Your task to perform on an android device: turn on the 12-hour format for clock Image 0: 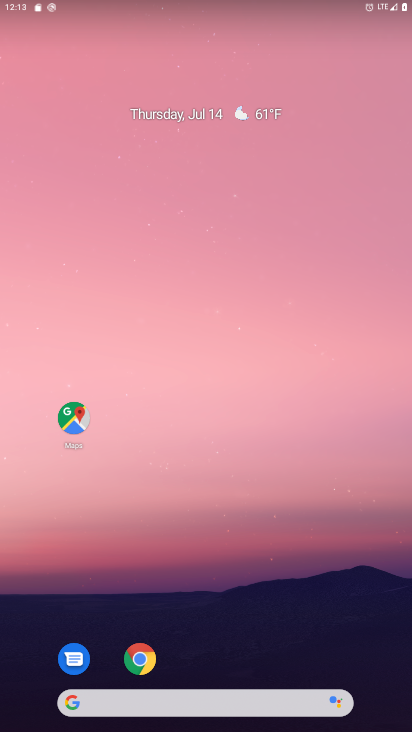
Step 0: drag from (199, 660) to (239, 135)
Your task to perform on an android device: turn on the 12-hour format for clock Image 1: 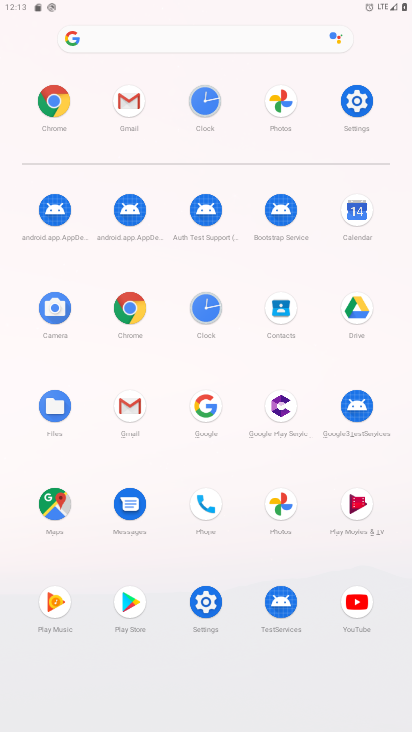
Step 1: click (199, 300)
Your task to perform on an android device: turn on the 12-hour format for clock Image 2: 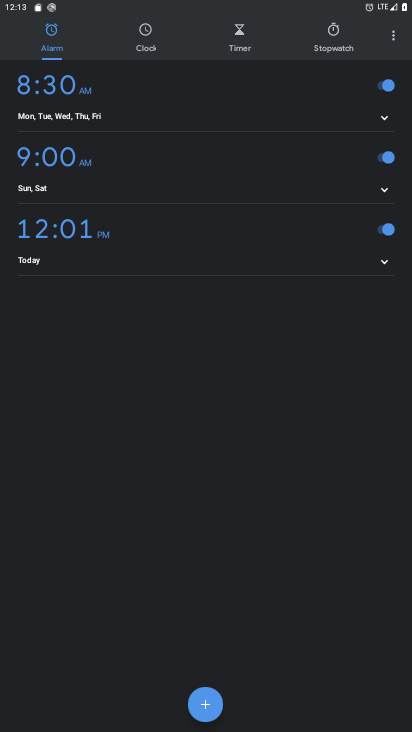
Step 2: click (390, 35)
Your task to perform on an android device: turn on the 12-hour format for clock Image 3: 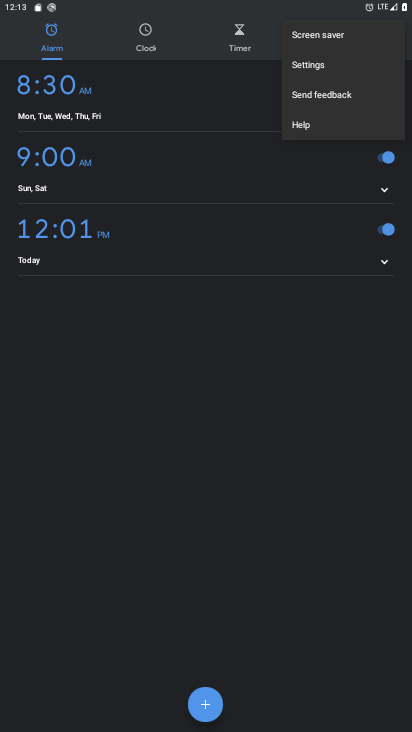
Step 3: click (333, 60)
Your task to perform on an android device: turn on the 12-hour format for clock Image 4: 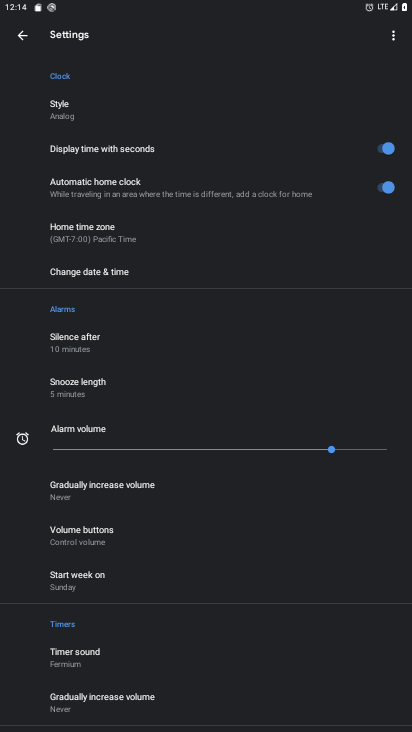
Step 4: click (143, 267)
Your task to perform on an android device: turn on the 12-hour format for clock Image 5: 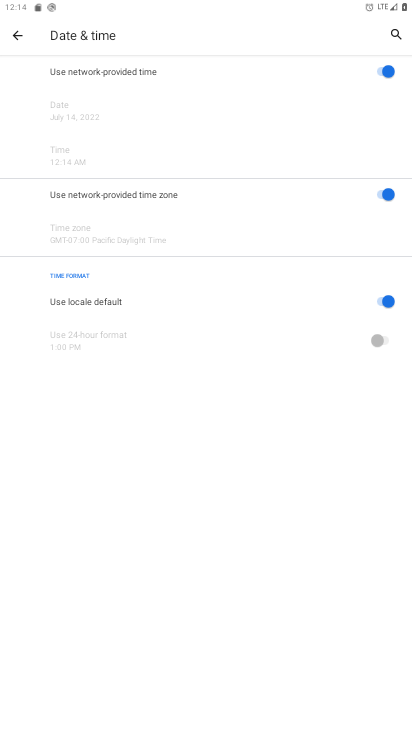
Step 5: task complete